Your task to perform on an android device: change the clock display to show seconds Image 0: 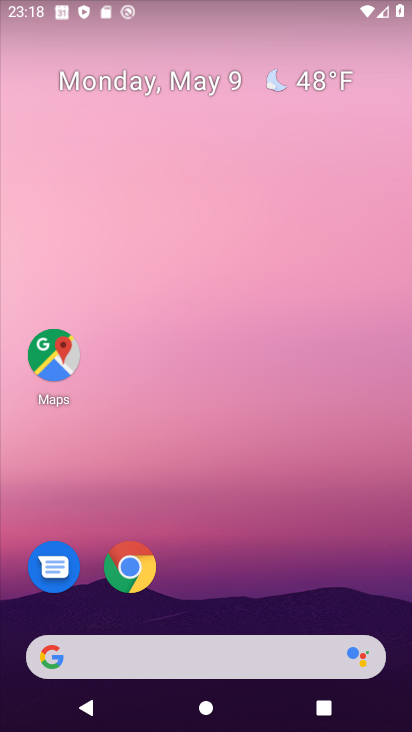
Step 0: drag from (253, 525) to (249, 165)
Your task to perform on an android device: change the clock display to show seconds Image 1: 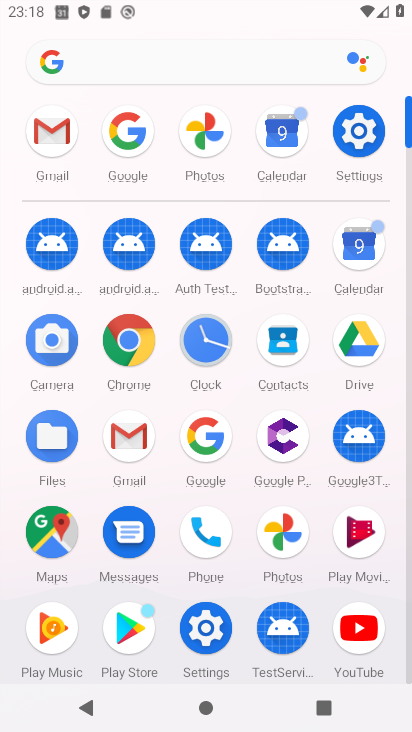
Step 1: click (203, 338)
Your task to perform on an android device: change the clock display to show seconds Image 2: 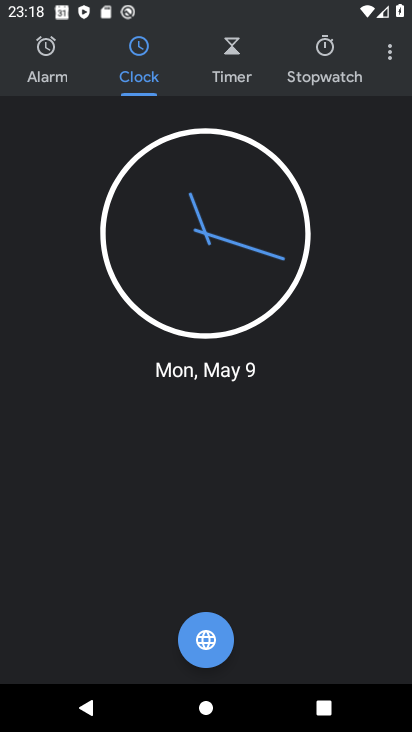
Step 2: click (390, 55)
Your task to perform on an android device: change the clock display to show seconds Image 3: 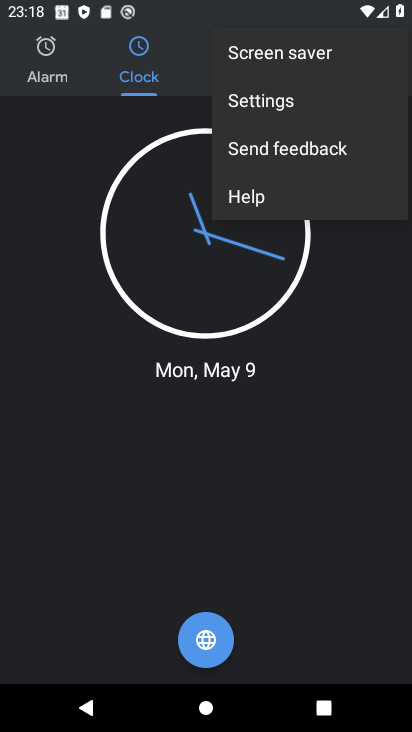
Step 3: click (279, 107)
Your task to perform on an android device: change the clock display to show seconds Image 4: 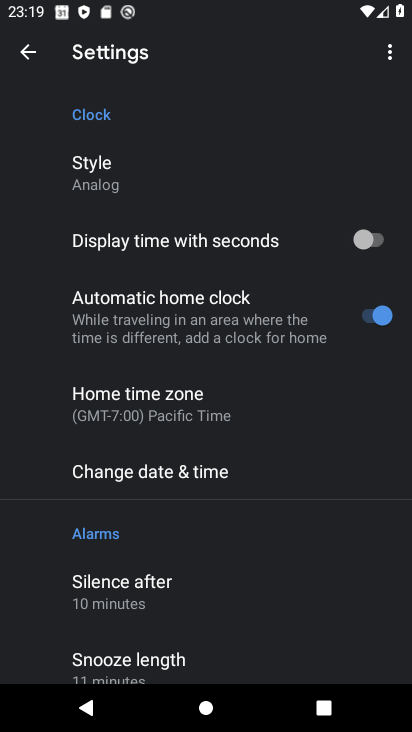
Step 4: click (375, 239)
Your task to perform on an android device: change the clock display to show seconds Image 5: 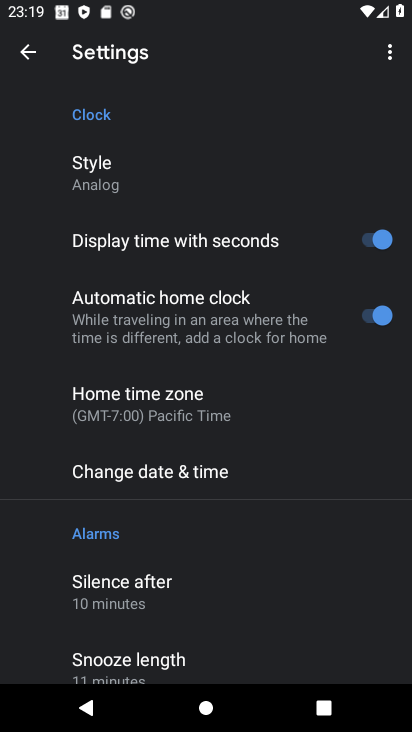
Step 5: task complete